Your task to perform on an android device: Open network settings Image 0: 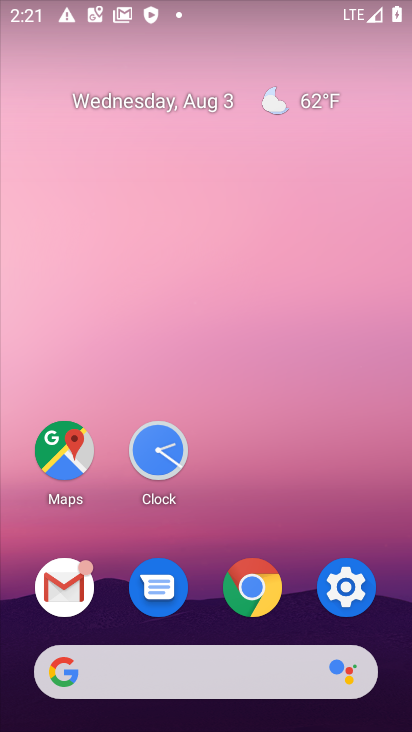
Step 0: click (349, 579)
Your task to perform on an android device: Open network settings Image 1: 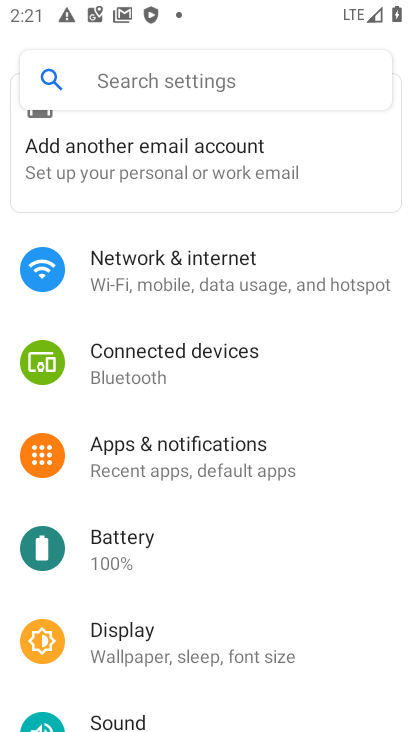
Step 1: click (184, 260)
Your task to perform on an android device: Open network settings Image 2: 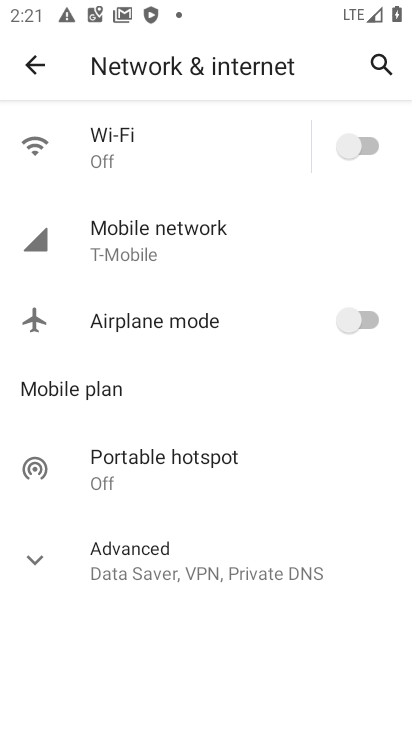
Step 2: click (152, 224)
Your task to perform on an android device: Open network settings Image 3: 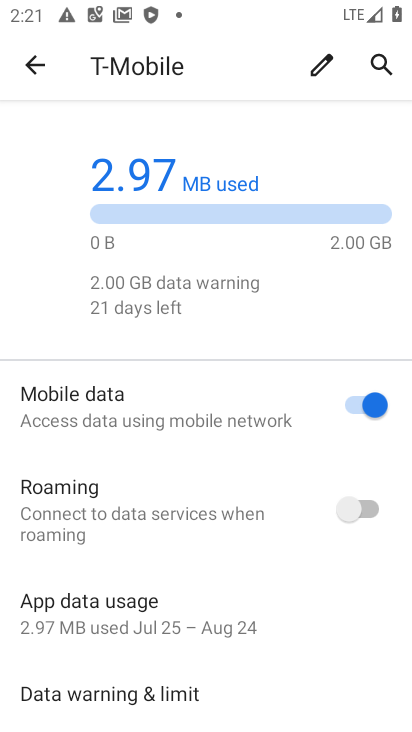
Step 3: task complete